Your task to perform on an android device: delete the emails in spam in the gmail app Image 0: 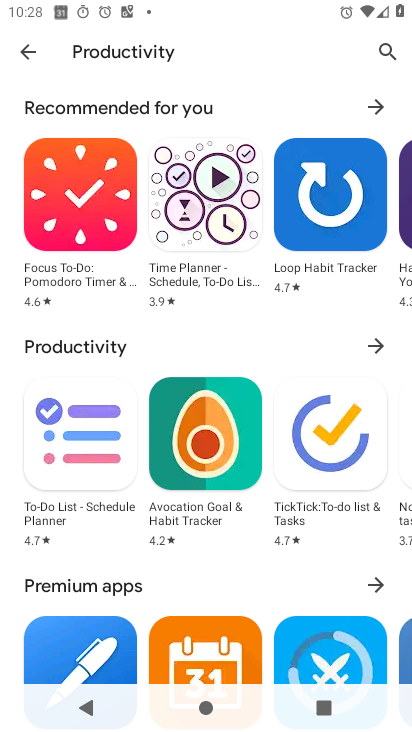
Step 0: press home button
Your task to perform on an android device: delete the emails in spam in the gmail app Image 1: 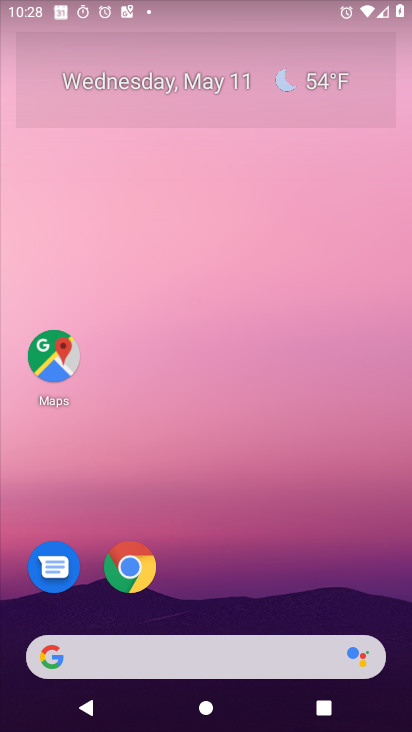
Step 1: drag from (208, 616) to (285, 39)
Your task to perform on an android device: delete the emails in spam in the gmail app Image 2: 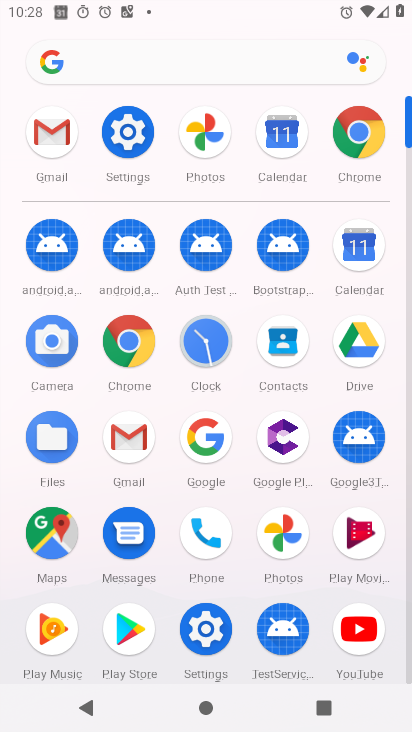
Step 2: click (126, 440)
Your task to perform on an android device: delete the emails in spam in the gmail app Image 3: 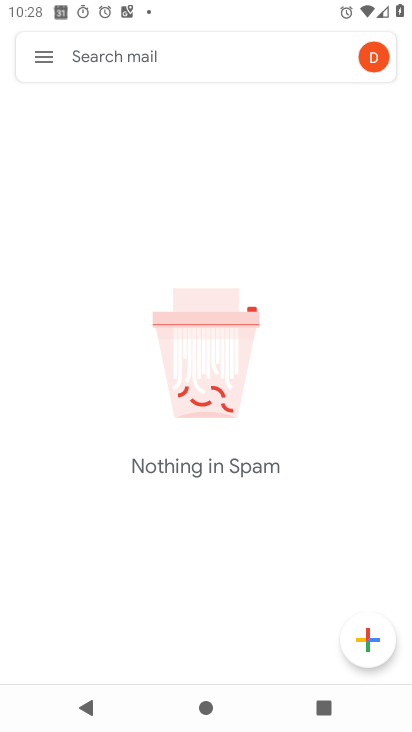
Step 3: click (39, 52)
Your task to perform on an android device: delete the emails in spam in the gmail app Image 4: 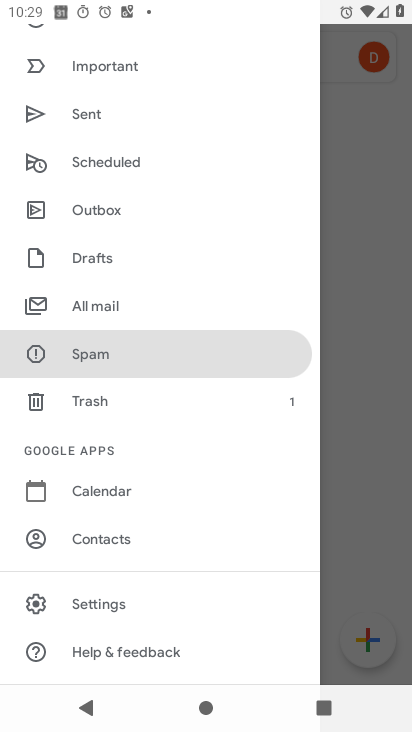
Step 4: click (101, 354)
Your task to perform on an android device: delete the emails in spam in the gmail app Image 5: 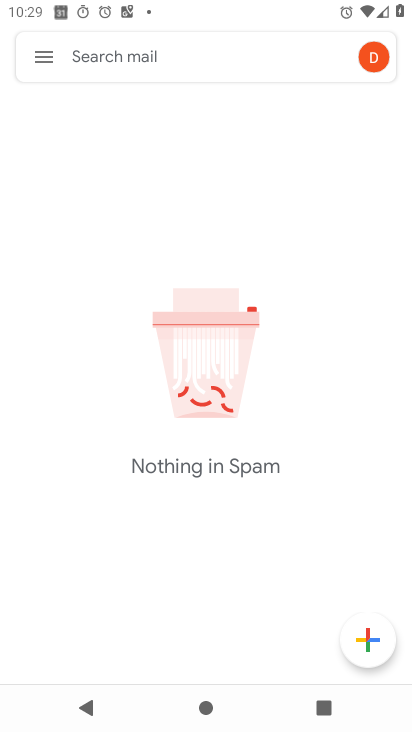
Step 5: task complete